Your task to perform on an android device: change alarm snooze length Image 0: 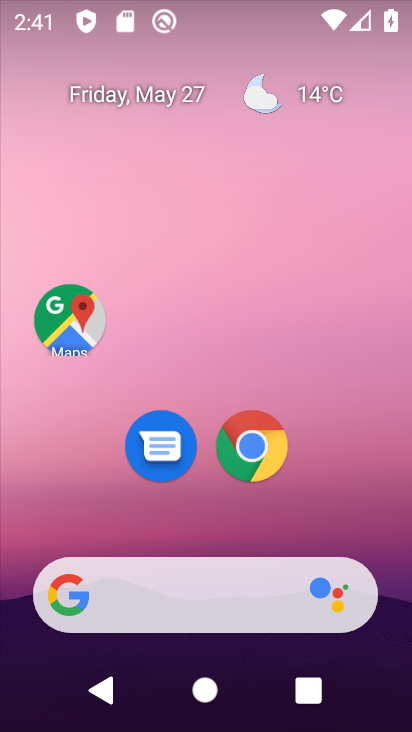
Step 0: press home button
Your task to perform on an android device: change alarm snooze length Image 1: 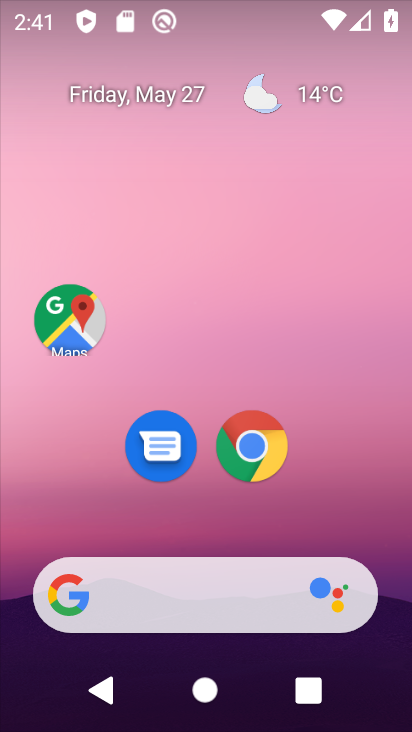
Step 1: drag from (188, 600) to (326, 105)
Your task to perform on an android device: change alarm snooze length Image 2: 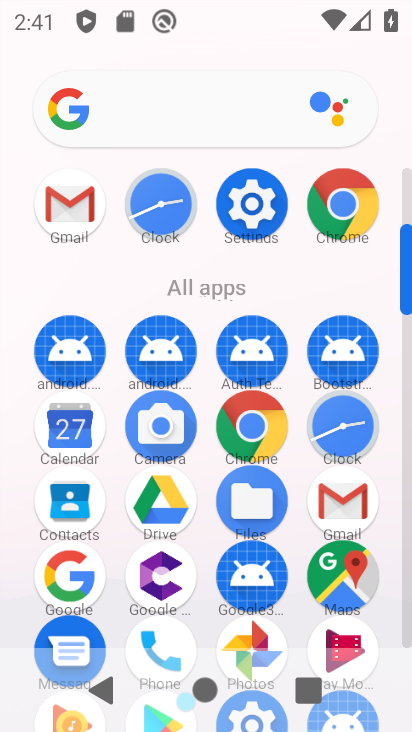
Step 2: click (347, 437)
Your task to perform on an android device: change alarm snooze length Image 3: 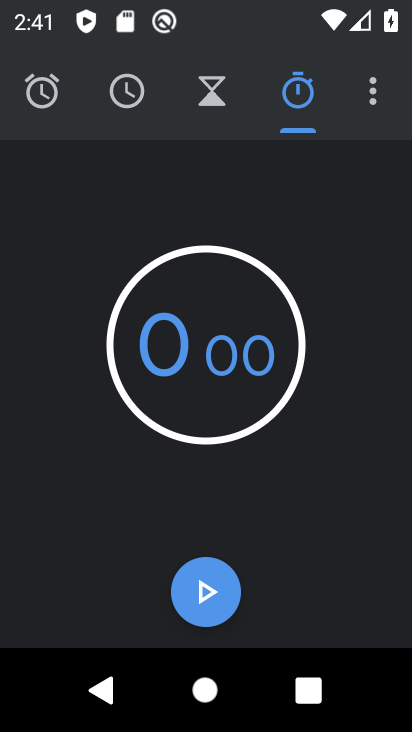
Step 3: click (370, 100)
Your task to perform on an android device: change alarm snooze length Image 4: 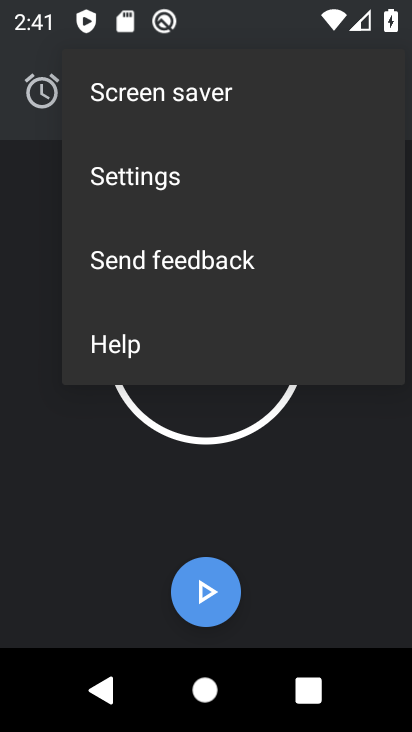
Step 4: click (157, 178)
Your task to perform on an android device: change alarm snooze length Image 5: 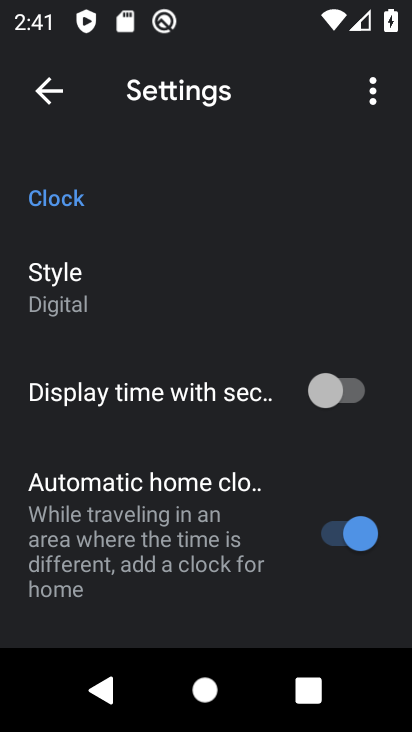
Step 5: drag from (225, 601) to (303, 147)
Your task to perform on an android device: change alarm snooze length Image 6: 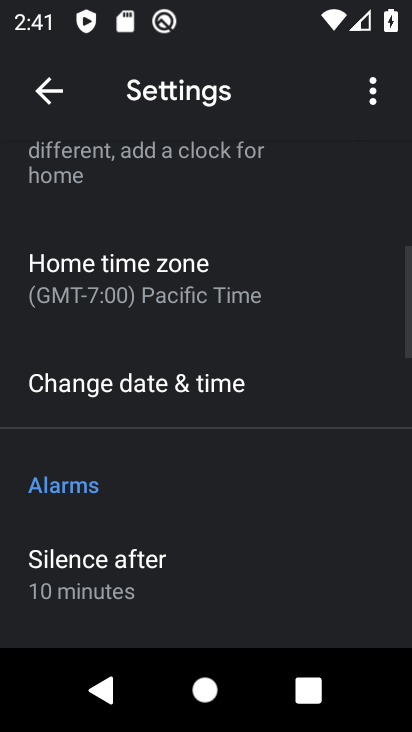
Step 6: drag from (218, 536) to (261, 188)
Your task to perform on an android device: change alarm snooze length Image 7: 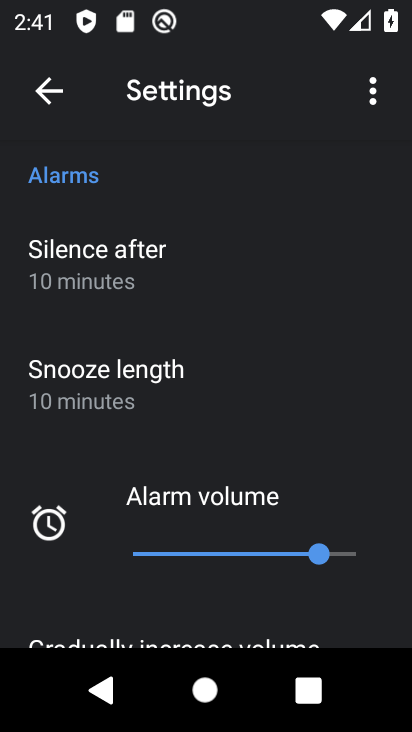
Step 7: click (120, 373)
Your task to perform on an android device: change alarm snooze length Image 8: 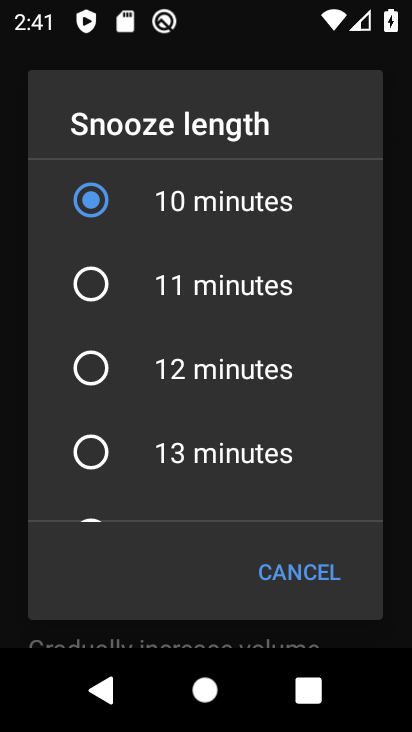
Step 8: click (98, 457)
Your task to perform on an android device: change alarm snooze length Image 9: 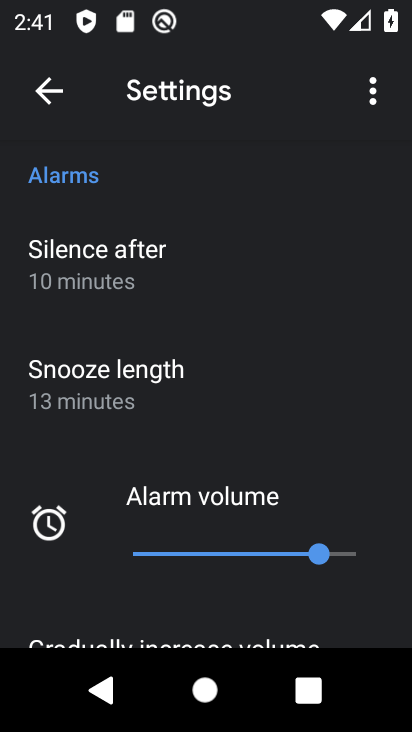
Step 9: task complete